Your task to perform on an android device: Show me popular videos on Youtube Image 0: 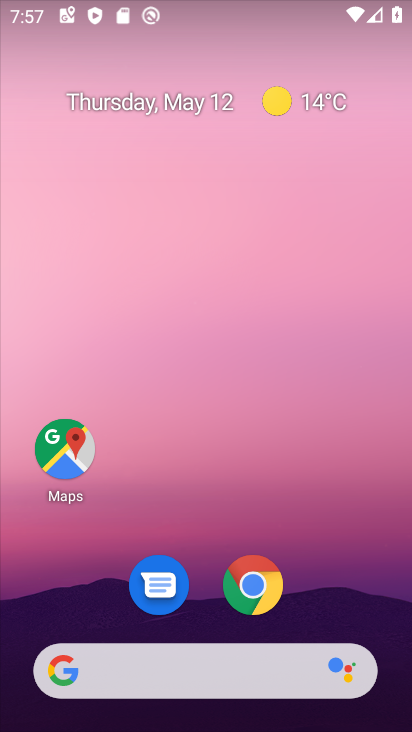
Step 0: drag from (327, 525) to (216, 26)
Your task to perform on an android device: Show me popular videos on Youtube Image 1: 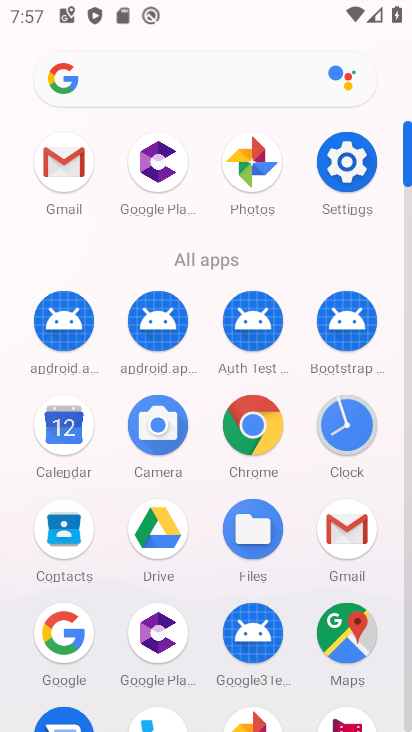
Step 1: drag from (299, 473) to (254, 174)
Your task to perform on an android device: Show me popular videos on Youtube Image 2: 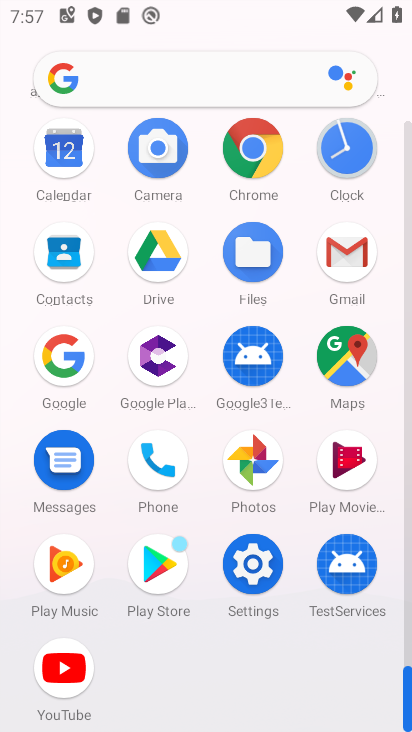
Step 2: click (52, 658)
Your task to perform on an android device: Show me popular videos on Youtube Image 3: 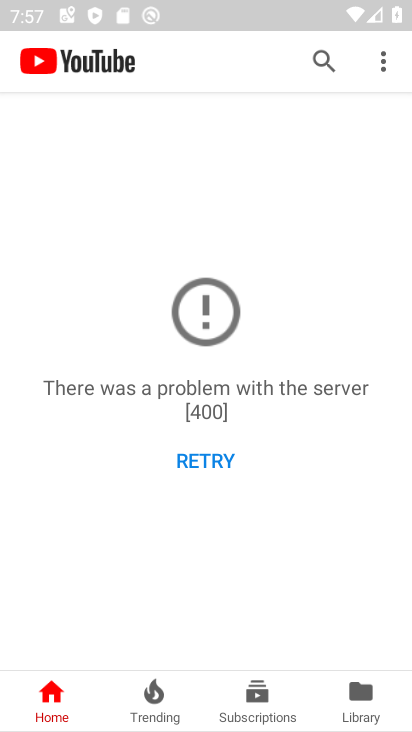
Step 3: click (216, 452)
Your task to perform on an android device: Show me popular videos on Youtube Image 4: 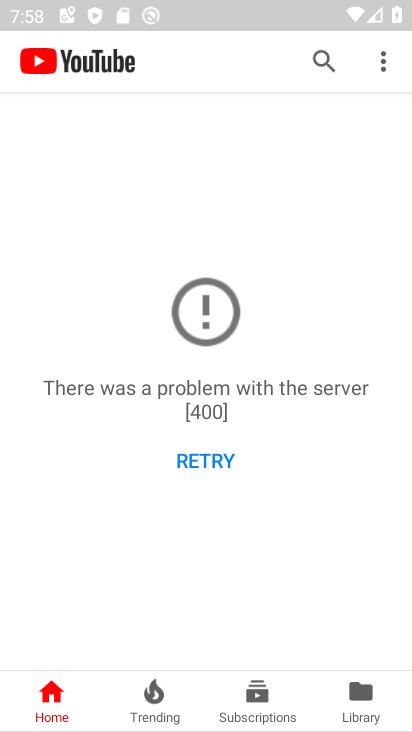
Step 4: click (216, 454)
Your task to perform on an android device: Show me popular videos on Youtube Image 5: 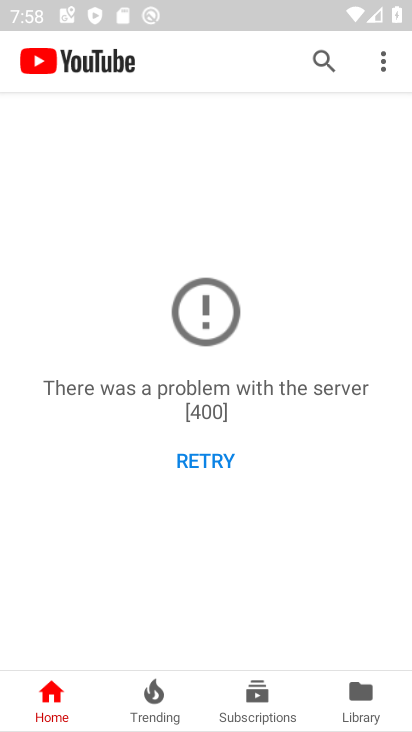
Step 5: click (384, 61)
Your task to perform on an android device: Show me popular videos on Youtube Image 6: 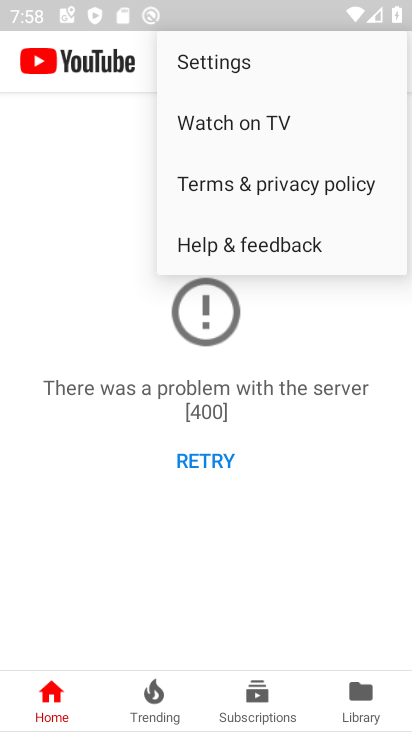
Step 6: click (351, 55)
Your task to perform on an android device: Show me popular videos on Youtube Image 7: 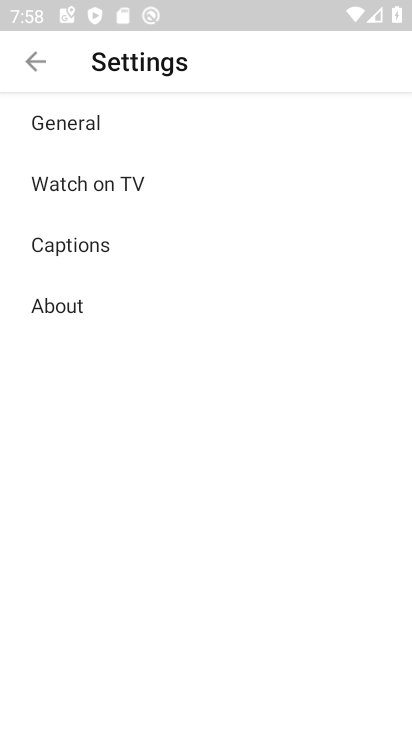
Step 7: click (86, 118)
Your task to perform on an android device: Show me popular videos on Youtube Image 8: 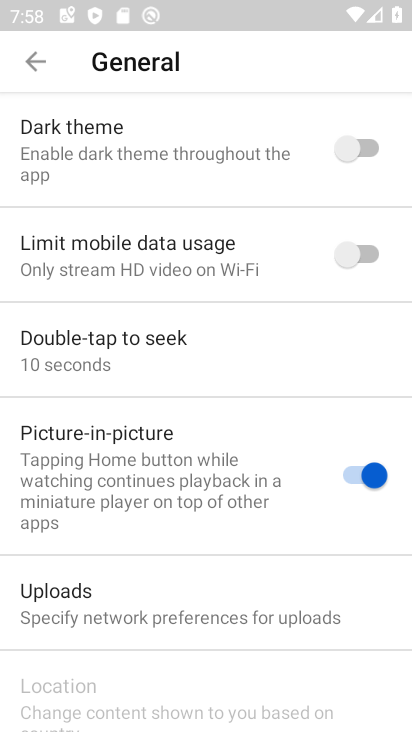
Step 8: drag from (208, 507) to (198, 114)
Your task to perform on an android device: Show me popular videos on Youtube Image 9: 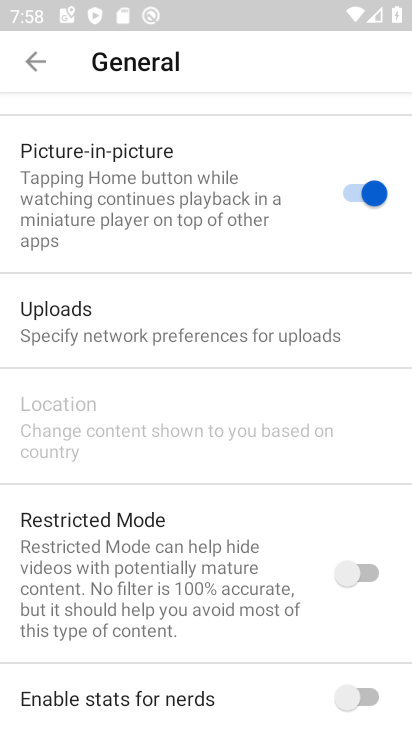
Step 9: drag from (213, 414) to (211, 259)
Your task to perform on an android device: Show me popular videos on Youtube Image 10: 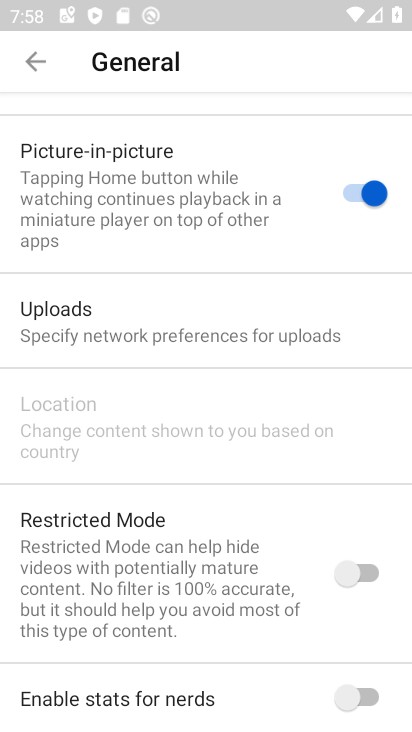
Step 10: click (35, 55)
Your task to perform on an android device: Show me popular videos on Youtube Image 11: 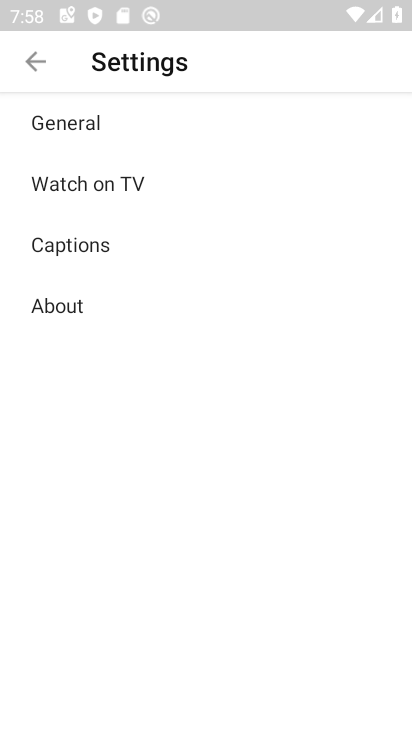
Step 11: click (35, 56)
Your task to perform on an android device: Show me popular videos on Youtube Image 12: 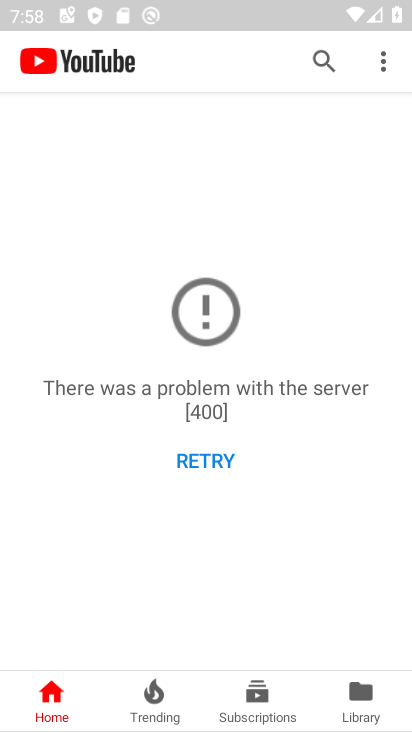
Step 12: click (215, 449)
Your task to perform on an android device: Show me popular videos on Youtube Image 13: 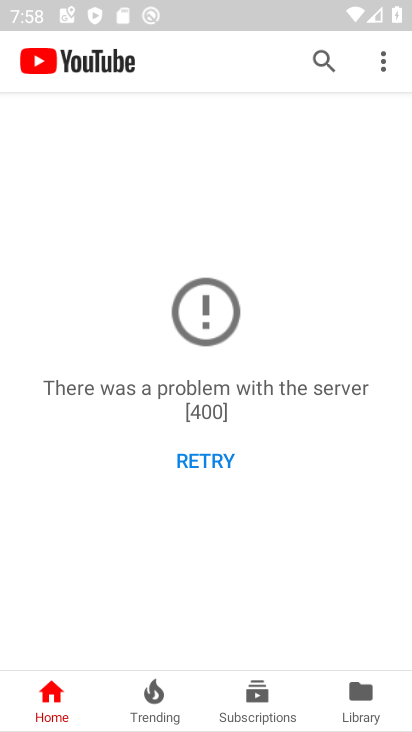
Step 13: task complete